Your task to perform on an android device: turn off data saver in the chrome app Image 0: 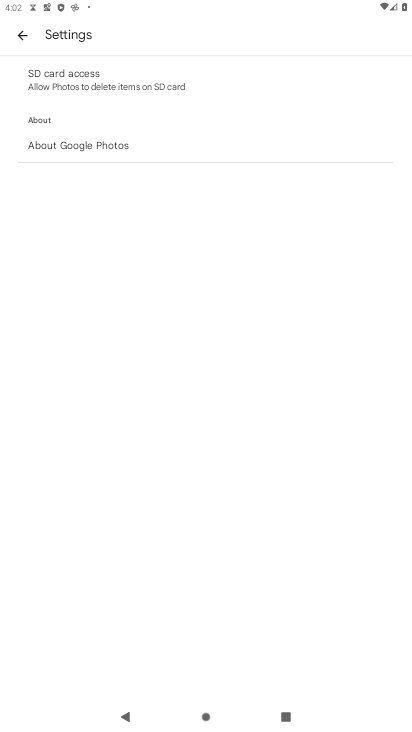
Step 0: press home button
Your task to perform on an android device: turn off data saver in the chrome app Image 1: 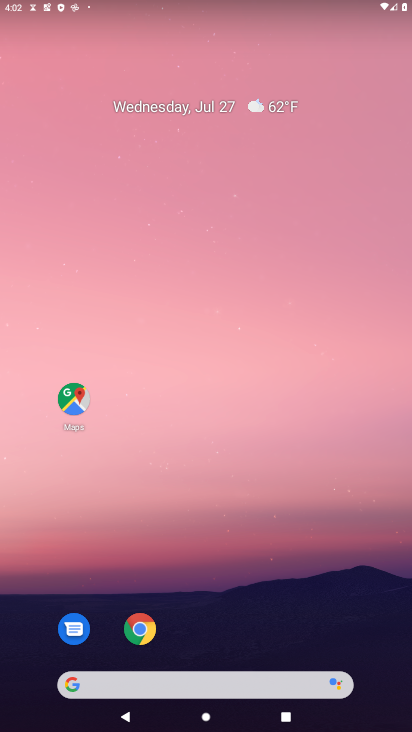
Step 1: click (140, 630)
Your task to perform on an android device: turn off data saver in the chrome app Image 2: 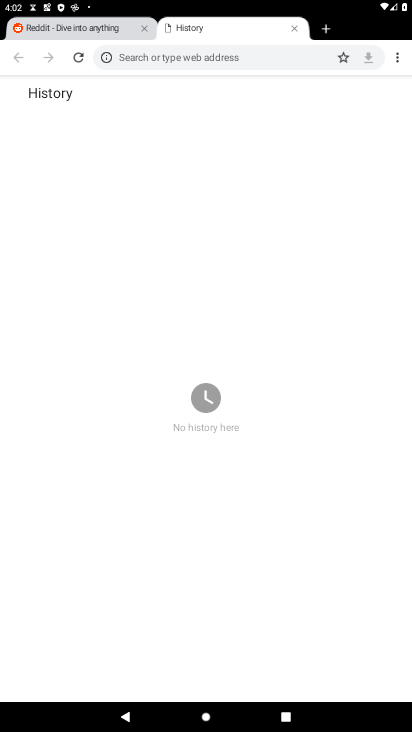
Step 2: click (398, 56)
Your task to perform on an android device: turn off data saver in the chrome app Image 3: 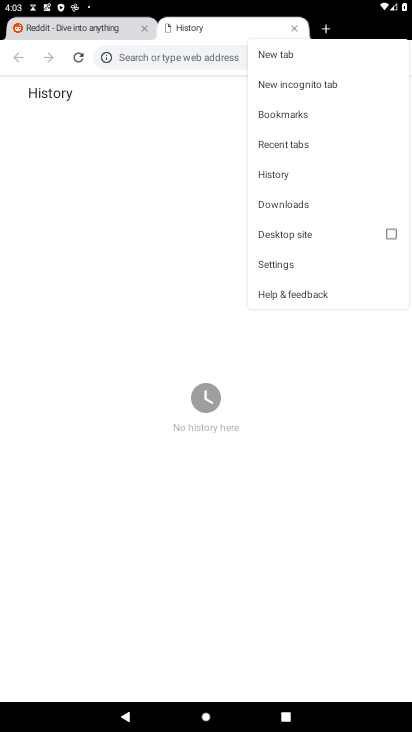
Step 3: click (285, 265)
Your task to perform on an android device: turn off data saver in the chrome app Image 4: 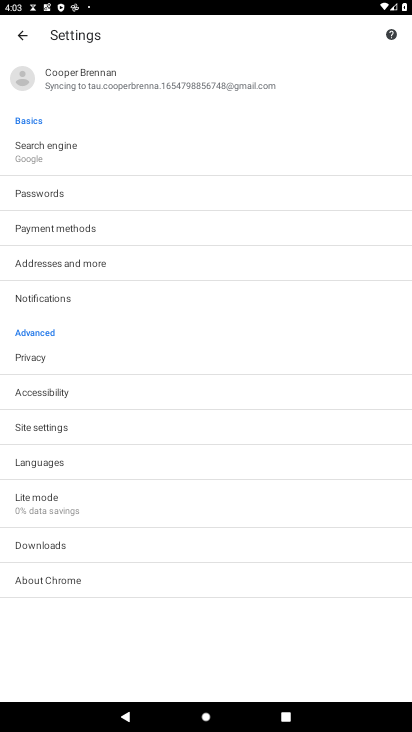
Step 4: click (49, 495)
Your task to perform on an android device: turn off data saver in the chrome app Image 5: 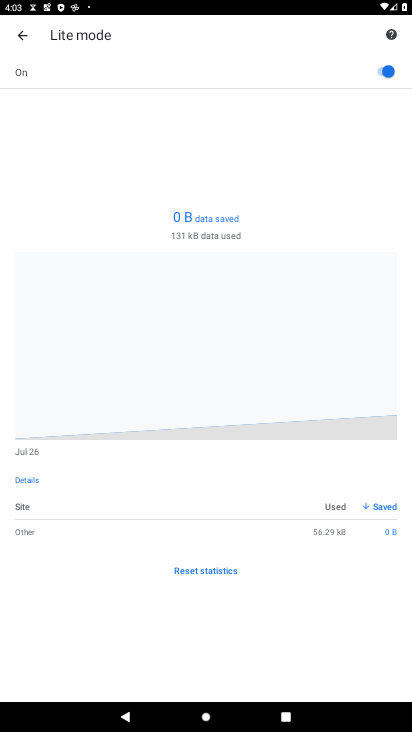
Step 5: click (384, 73)
Your task to perform on an android device: turn off data saver in the chrome app Image 6: 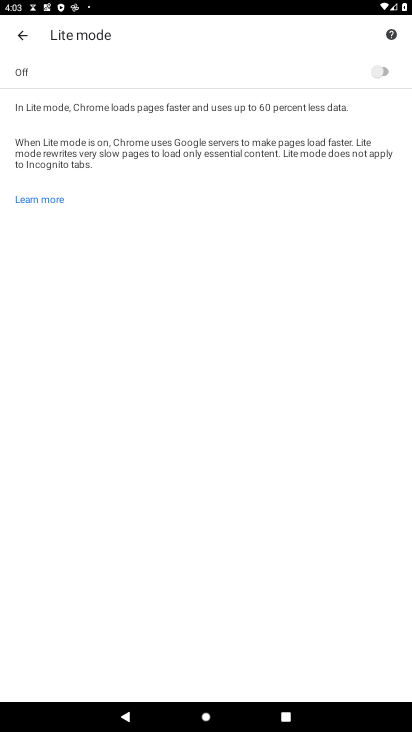
Step 6: task complete